Your task to perform on an android device: Open the calendar and show me this week's events Image 0: 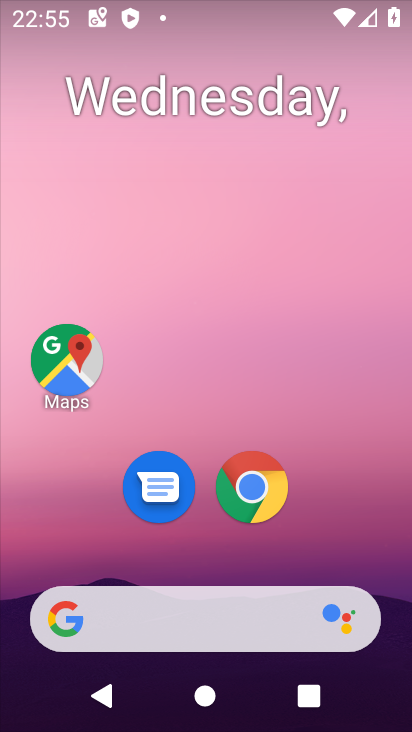
Step 0: drag from (142, 621) to (190, 40)
Your task to perform on an android device: Open the calendar and show me this week's events Image 1: 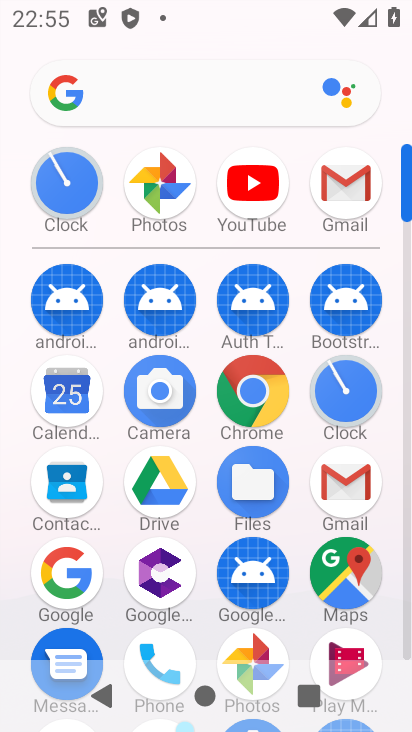
Step 1: click (64, 406)
Your task to perform on an android device: Open the calendar and show me this week's events Image 2: 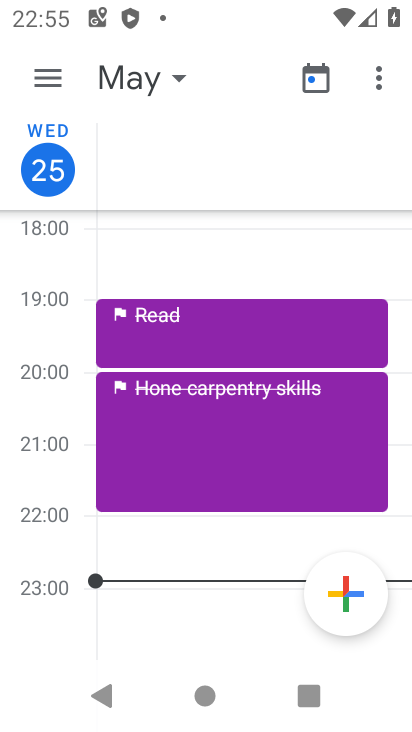
Step 2: task complete